Your task to perform on an android device: Go to eBay Image 0: 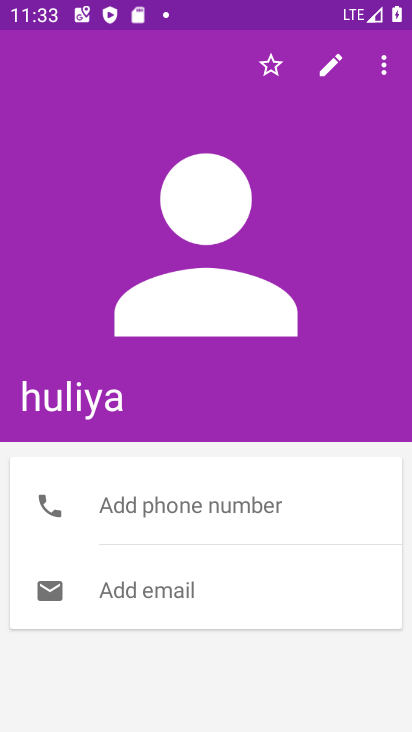
Step 0: press home button
Your task to perform on an android device: Go to eBay Image 1: 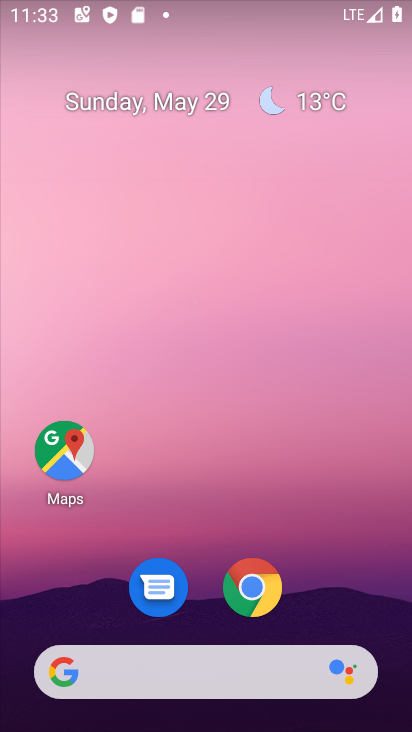
Step 1: drag from (314, 588) to (324, 163)
Your task to perform on an android device: Go to eBay Image 2: 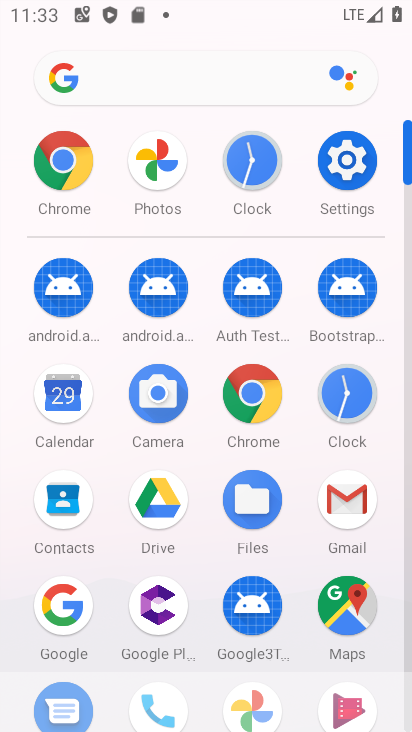
Step 2: click (248, 405)
Your task to perform on an android device: Go to eBay Image 3: 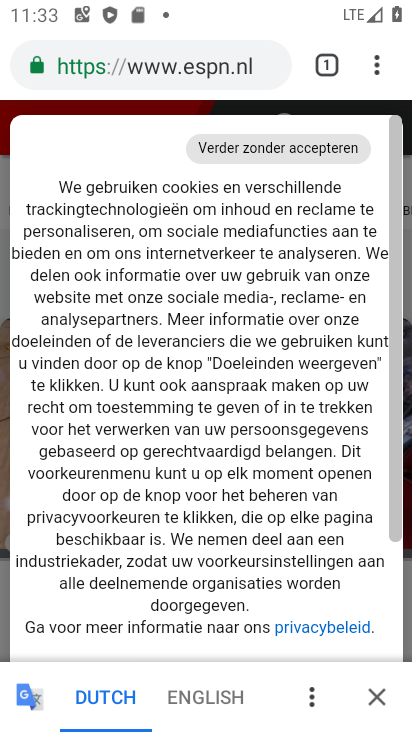
Step 3: click (252, 55)
Your task to perform on an android device: Go to eBay Image 4: 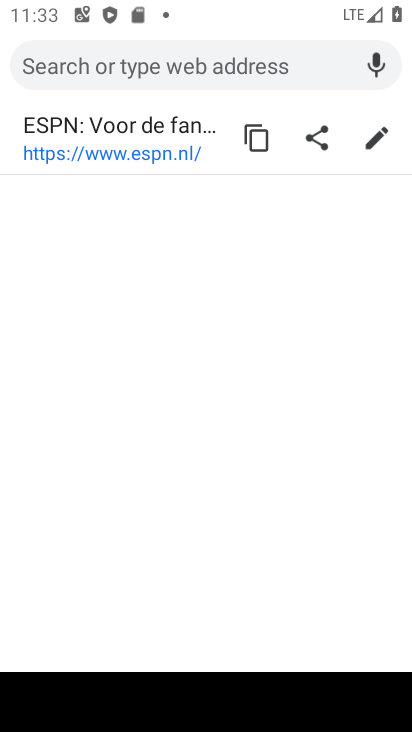
Step 4: type "ebay"
Your task to perform on an android device: Go to eBay Image 5: 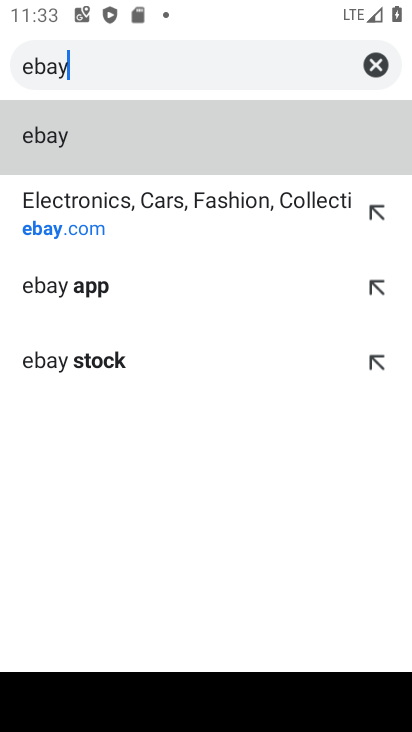
Step 5: click (74, 230)
Your task to perform on an android device: Go to eBay Image 6: 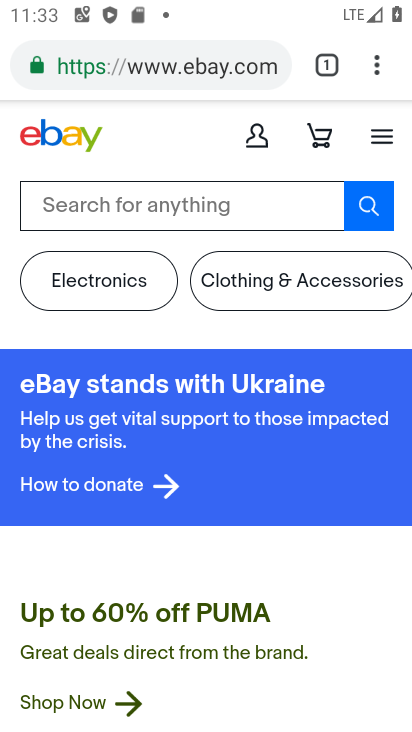
Step 6: task complete